Your task to perform on an android device: Open the Play Movies app and select the watchlist tab. Image 0: 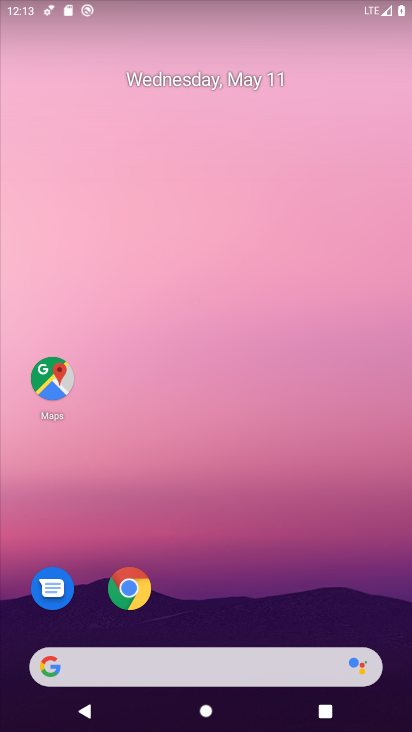
Step 0: drag from (172, 643) to (191, 311)
Your task to perform on an android device: Open the Play Movies app and select the watchlist tab. Image 1: 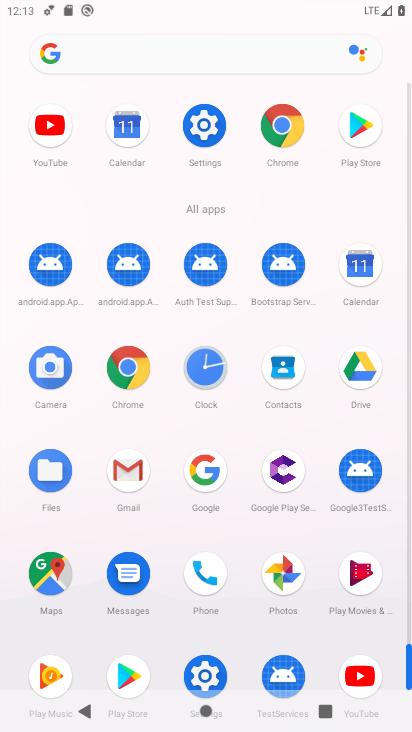
Step 1: click (351, 573)
Your task to perform on an android device: Open the Play Movies app and select the watchlist tab. Image 2: 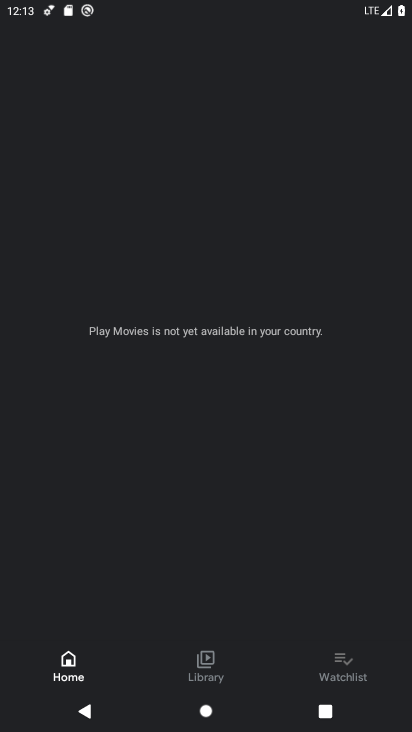
Step 2: click (346, 670)
Your task to perform on an android device: Open the Play Movies app and select the watchlist tab. Image 3: 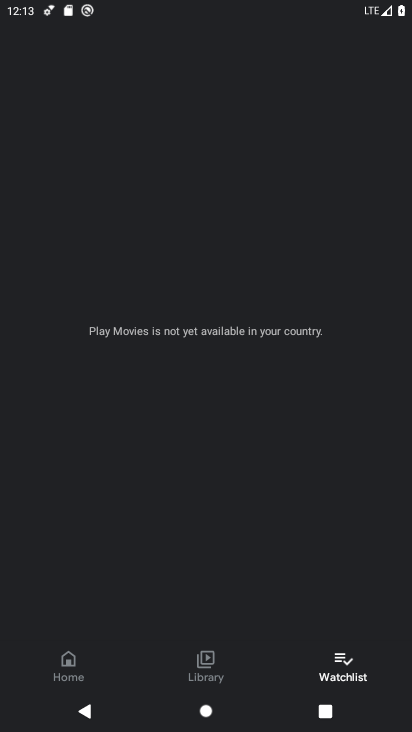
Step 3: task complete